Your task to perform on an android device: Clear the shopping cart on amazon.com. Add apple airpods to the cart on amazon.com Image 0: 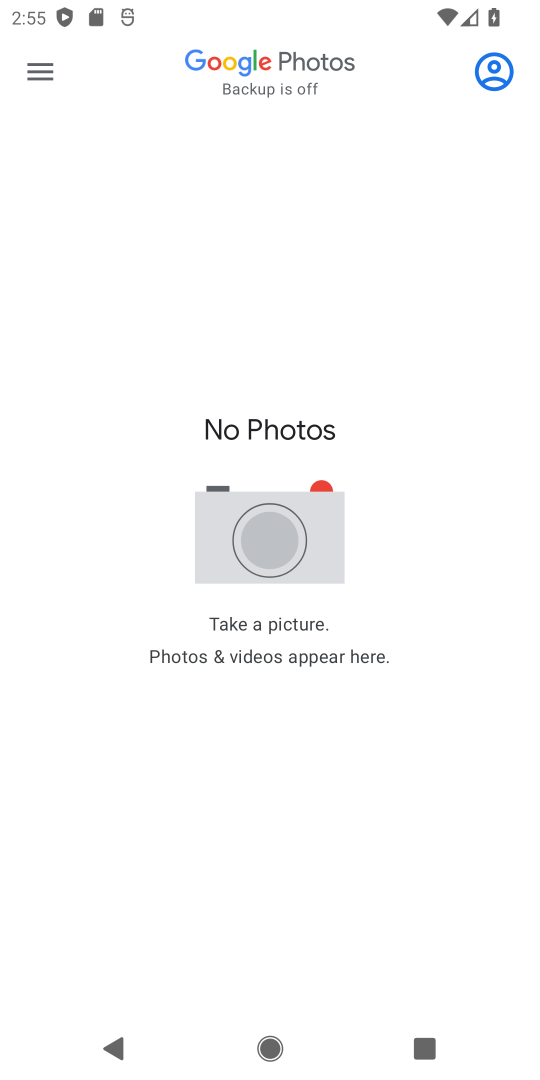
Step 0: press home button
Your task to perform on an android device: Clear the shopping cart on amazon.com. Add apple airpods to the cart on amazon.com Image 1: 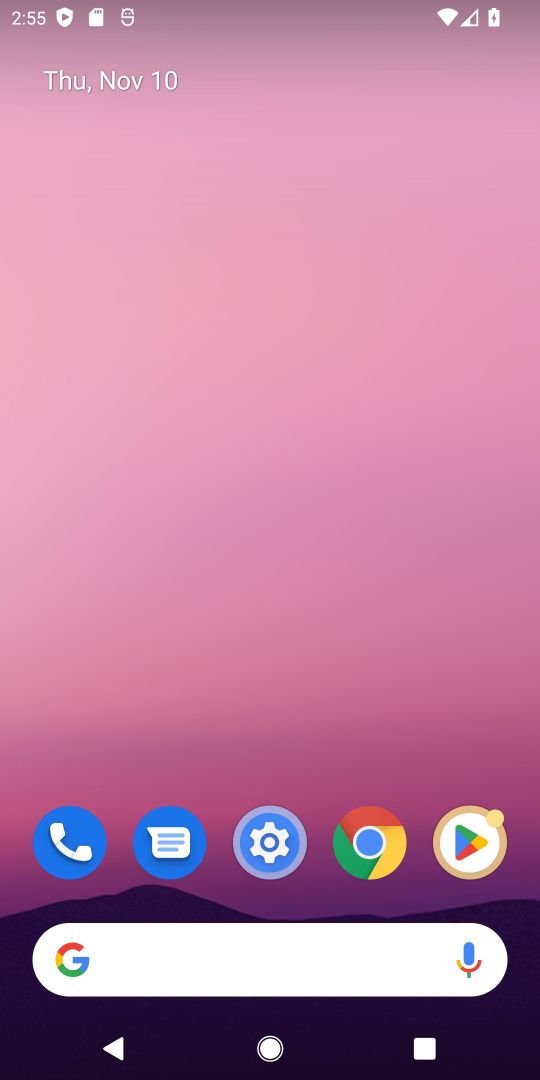
Step 1: click (102, 963)
Your task to perform on an android device: Clear the shopping cart on amazon.com. Add apple airpods to the cart on amazon.com Image 2: 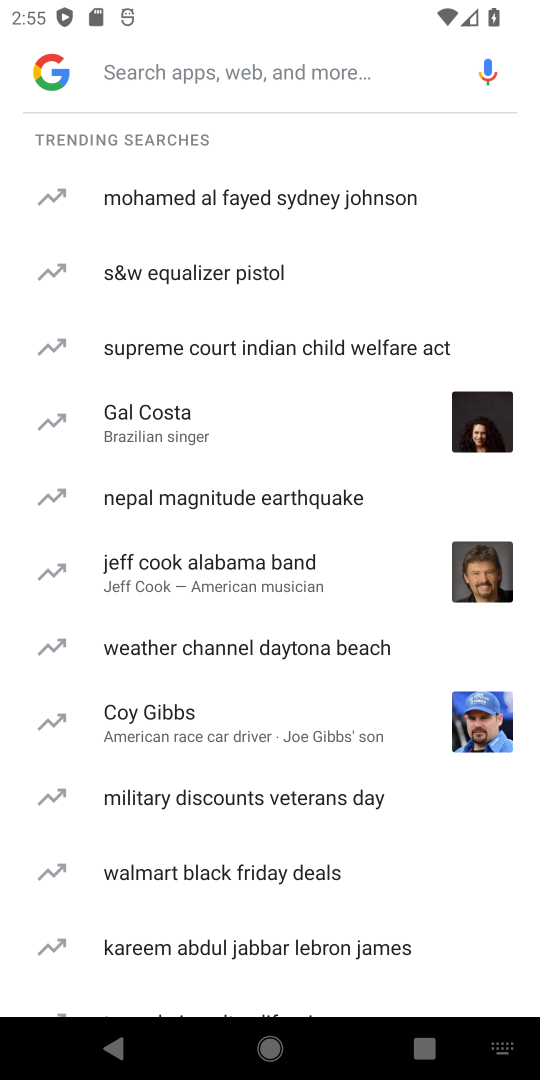
Step 2: type " amazon.com"
Your task to perform on an android device: Clear the shopping cart on amazon.com. Add apple airpods to the cart on amazon.com Image 3: 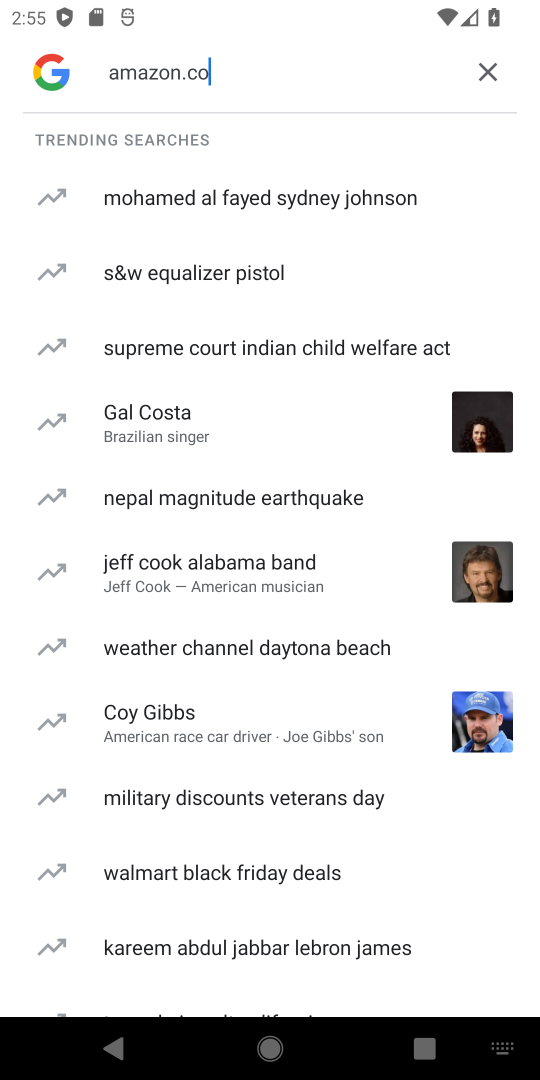
Step 3: press enter
Your task to perform on an android device: Clear the shopping cart on amazon.com. Add apple airpods to the cart on amazon.com Image 4: 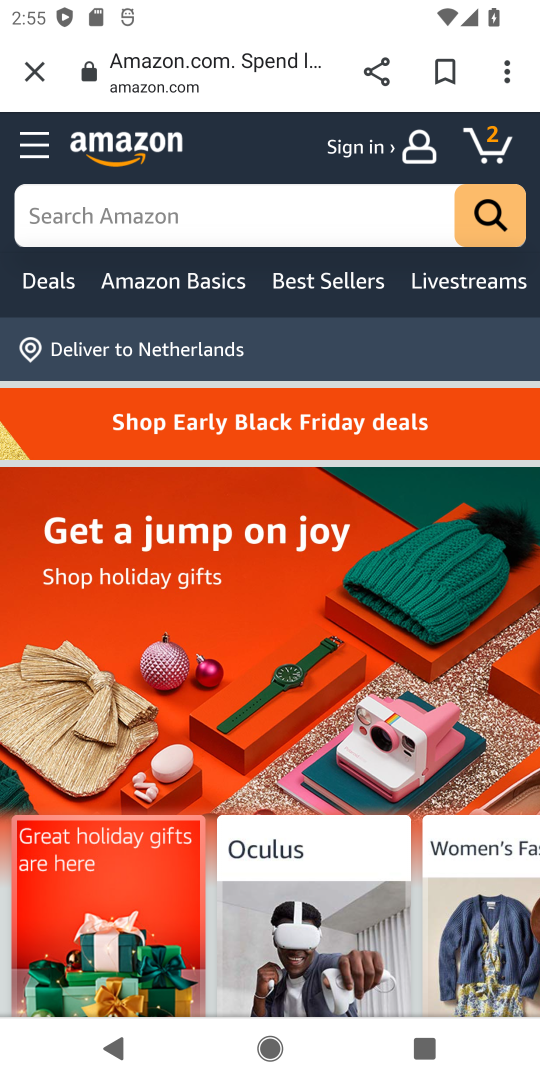
Step 4: click (485, 136)
Your task to perform on an android device: Clear the shopping cart on amazon.com. Add apple airpods to the cart on amazon.com Image 5: 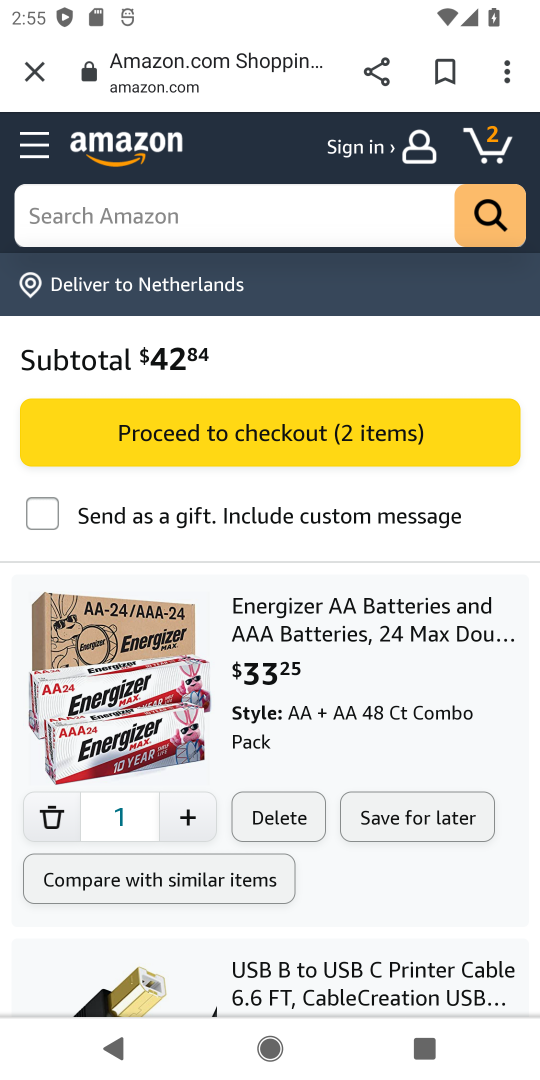
Step 5: drag from (378, 880) to (373, 487)
Your task to perform on an android device: Clear the shopping cart on amazon.com. Add apple airpods to the cart on amazon.com Image 6: 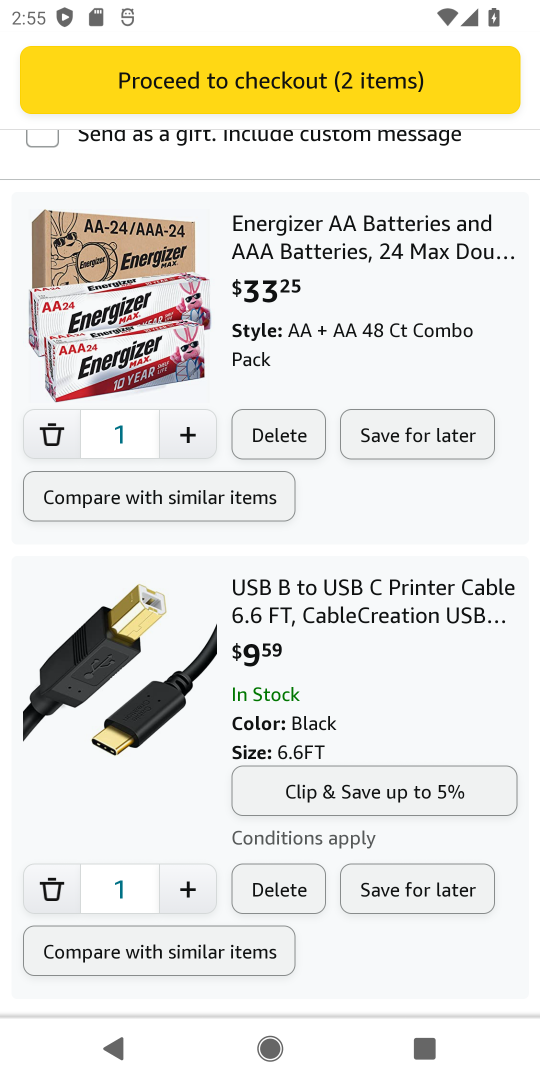
Step 6: click (284, 438)
Your task to perform on an android device: Clear the shopping cart on amazon.com. Add apple airpods to the cart on amazon.com Image 7: 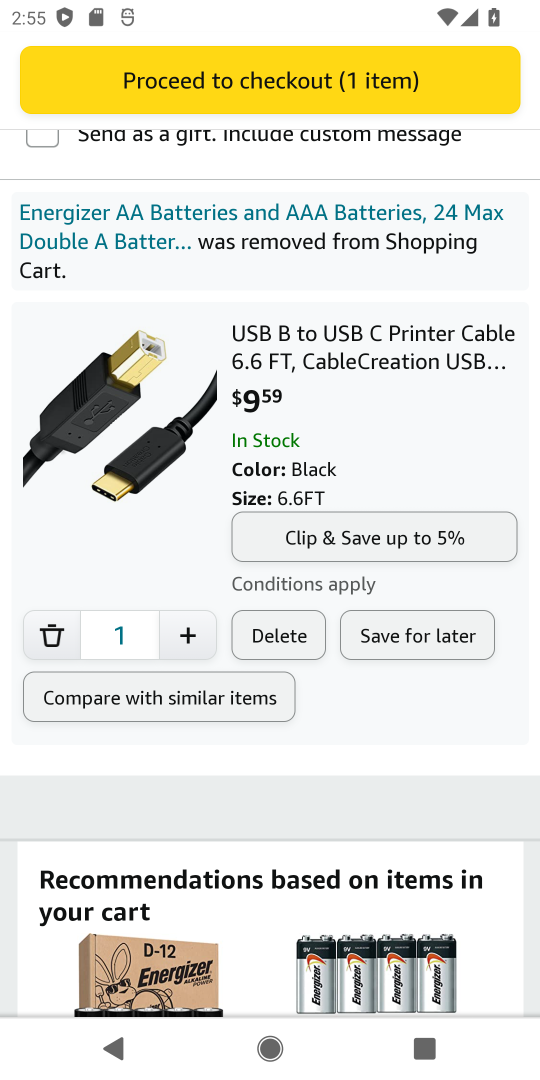
Step 7: click (276, 637)
Your task to perform on an android device: Clear the shopping cart on amazon.com. Add apple airpods to the cart on amazon.com Image 8: 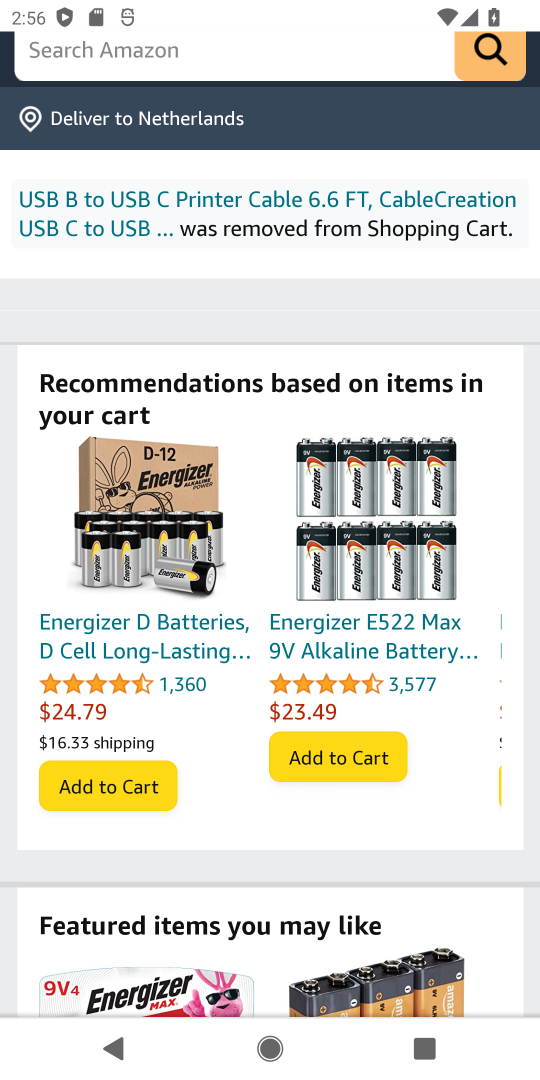
Step 8: drag from (321, 212) to (234, 584)
Your task to perform on an android device: Clear the shopping cart on amazon.com. Add apple airpods to the cart on amazon.com Image 9: 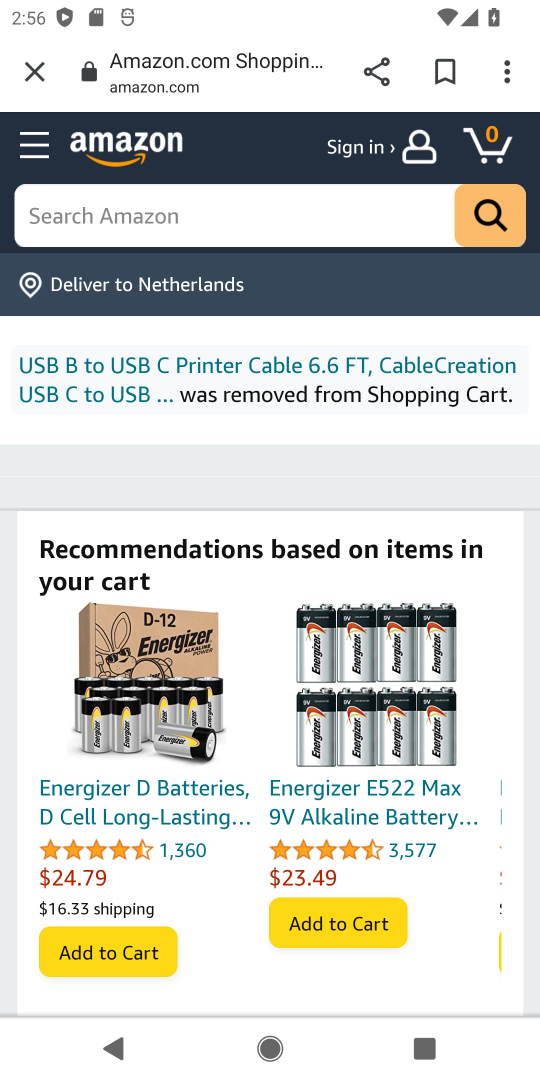
Step 9: click (144, 210)
Your task to perform on an android device: Clear the shopping cart on amazon.com. Add apple airpods to the cart on amazon.com Image 10: 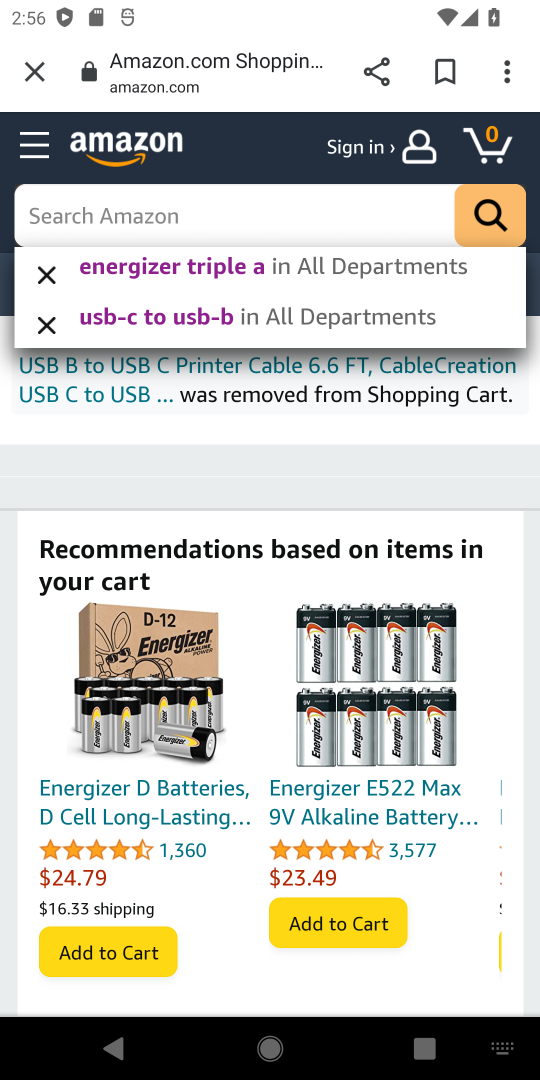
Step 10: type " apple airpods"
Your task to perform on an android device: Clear the shopping cart on amazon.com. Add apple airpods to the cart on amazon.com Image 11: 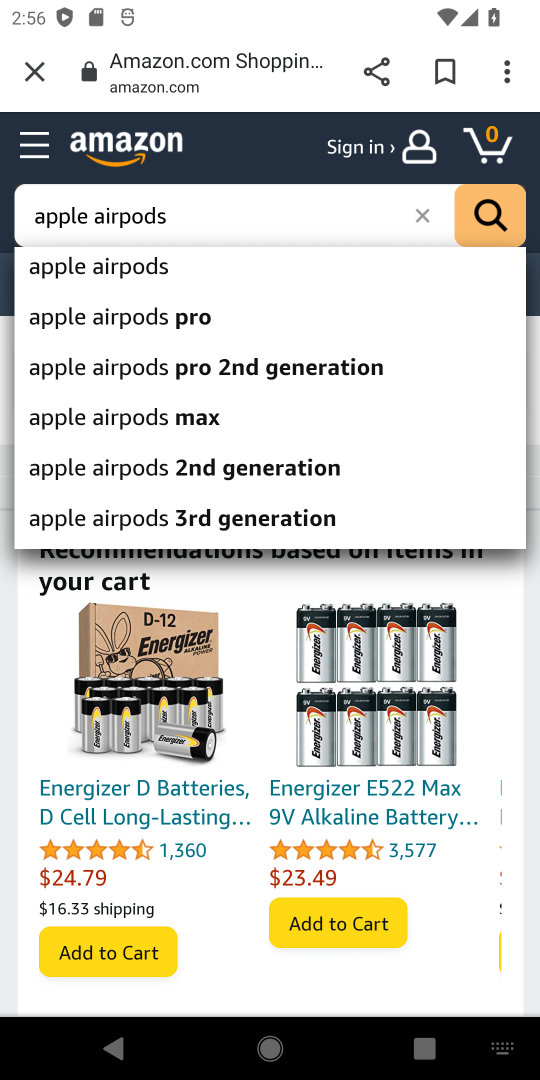
Step 11: click (484, 212)
Your task to perform on an android device: Clear the shopping cart on amazon.com. Add apple airpods to the cart on amazon.com Image 12: 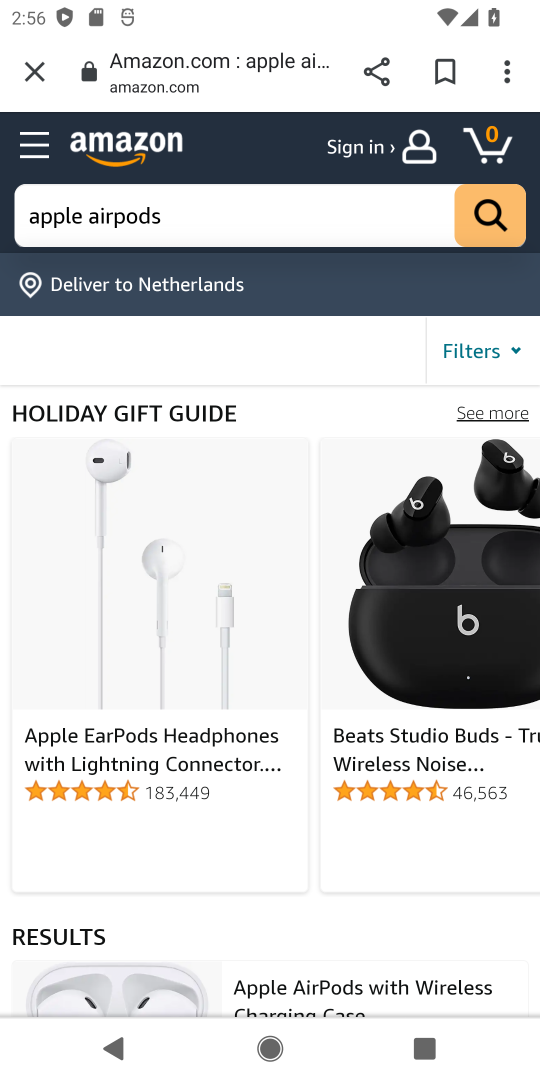
Step 12: drag from (259, 891) to (277, 445)
Your task to perform on an android device: Clear the shopping cart on amazon.com. Add apple airpods to the cart on amazon.com Image 13: 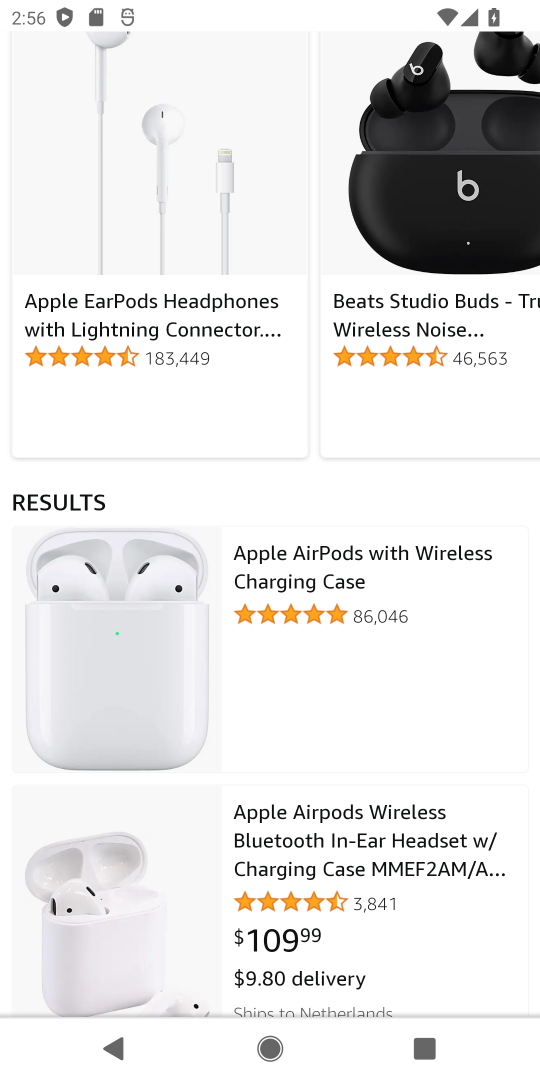
Step 13: click (293, 557)
Your task to perform on an android device: Clear the shopping cart on amazon.com. Add apple airpods to the cart on amazon.com Image 14: 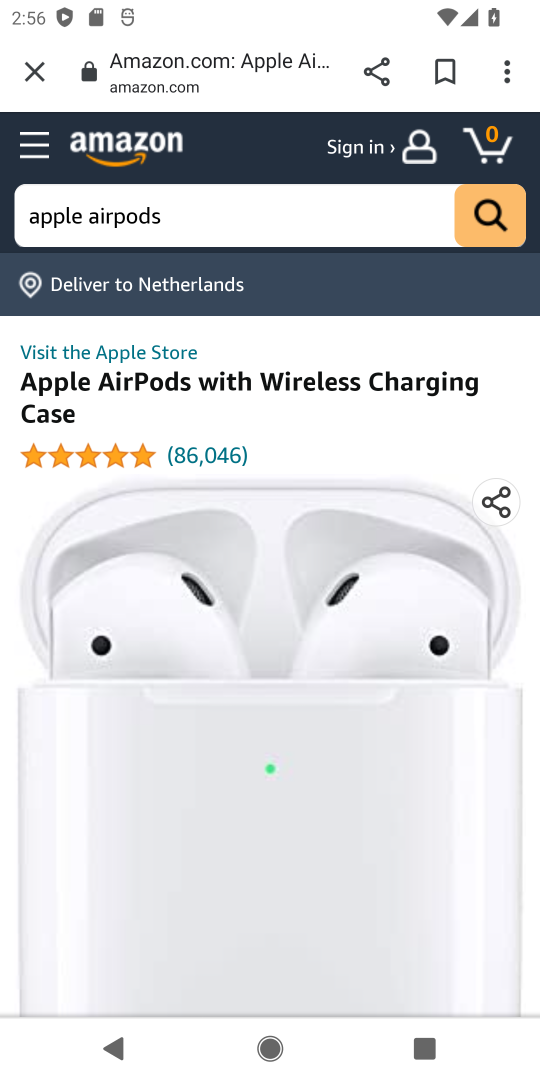
Step 14: task complete